Your task to perform on an android device: toggle data saver in the chrome app Image 0: 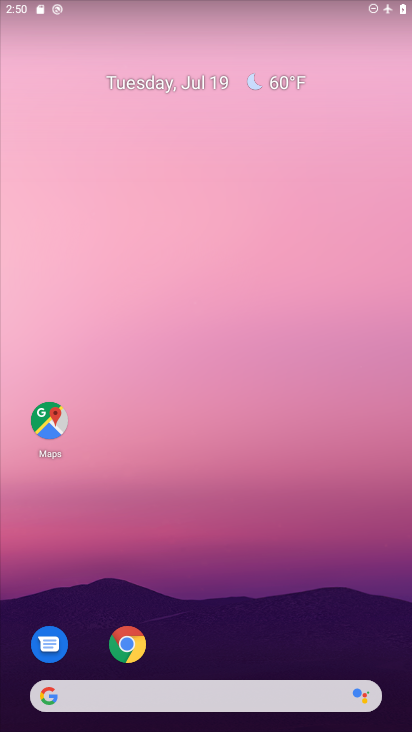
Step 0: click (137, 643)
Your task to perform on an android device: toggle data saver in the chrome app Image 1: 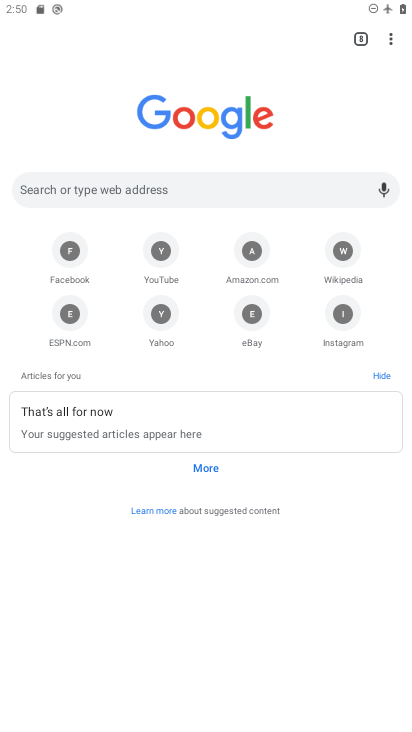
Step 1: drag from (393, 33) to (263, 322)
Your task to perform on an android device: toggle data saver in the chrome app Image 2: 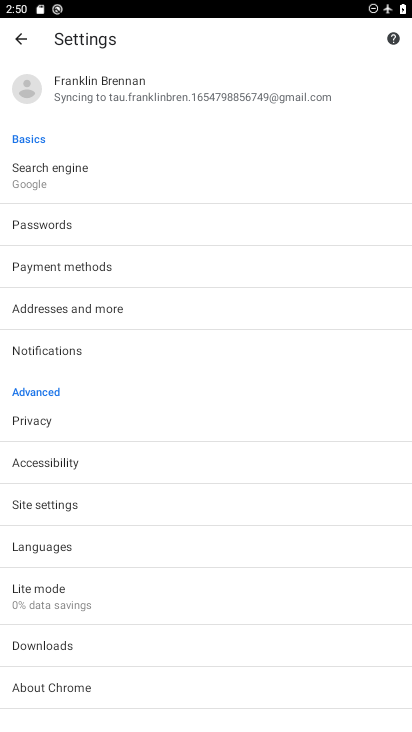
Step 2: click (55, 591)
Your task to perform on an android device: toggle data saver in the chrome app Image 3: 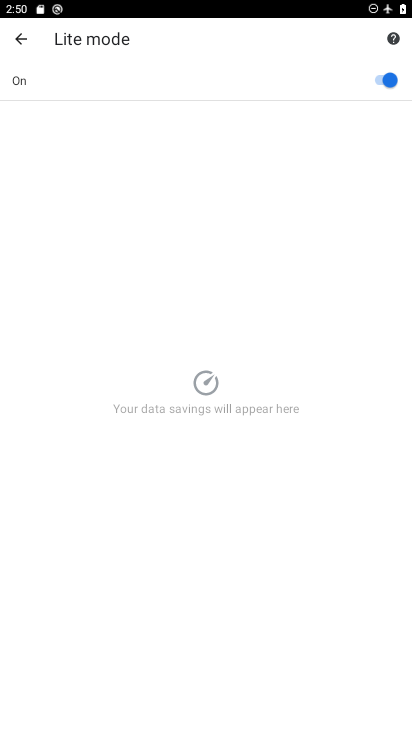
Step 3: click (380, 80)
Your task to perform on an android device: toggle data saver in the chrome app Image 4: 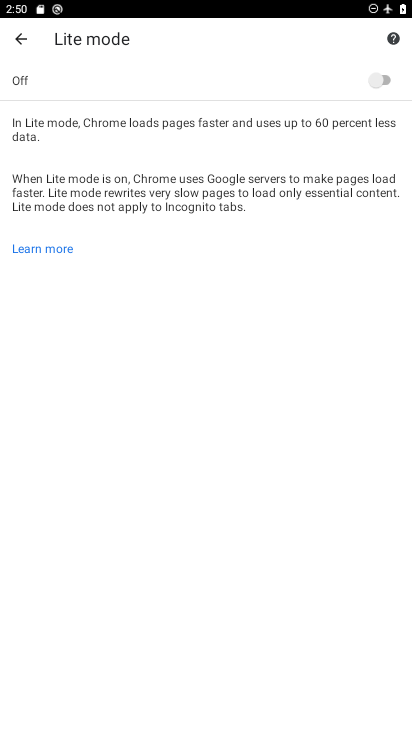
Step 4: task complete